Your task to perform on an android device: Open Youtube and go to "Your channel" Image 0: 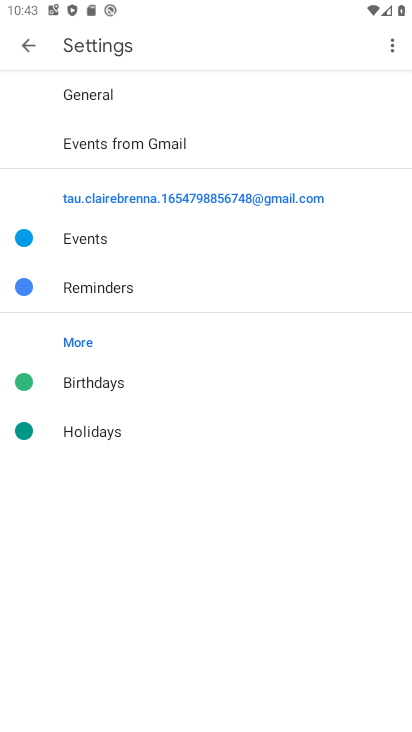
Step 0: press home button
Your task to perform on an android device: Open Youtube and go to "Your channel" Image 1: 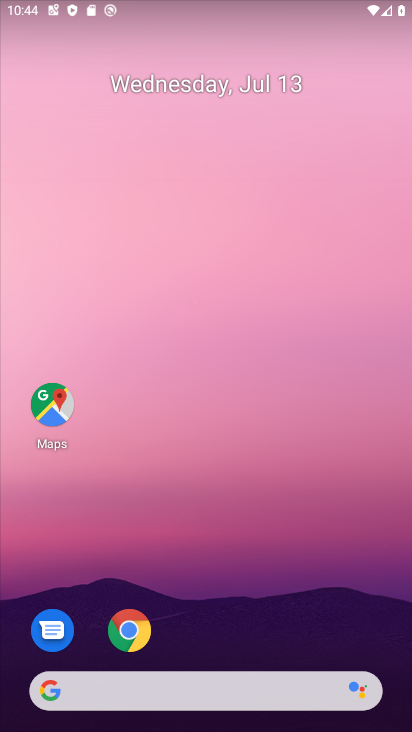
Step 1: drag from (303, 506) to (246, 18)
Your task to perform on an android device: Open Youtube and go to "Your channel" Image 2: 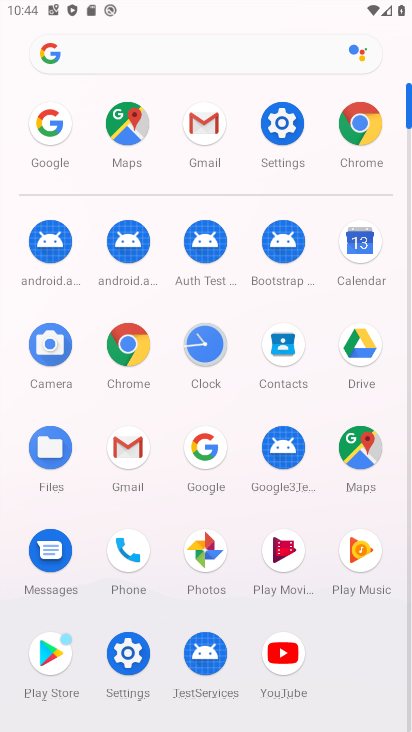
Step 2: click (289, 653)
Your task to perform on an android device: Open Youtube and go to "Your channel" Image 3: 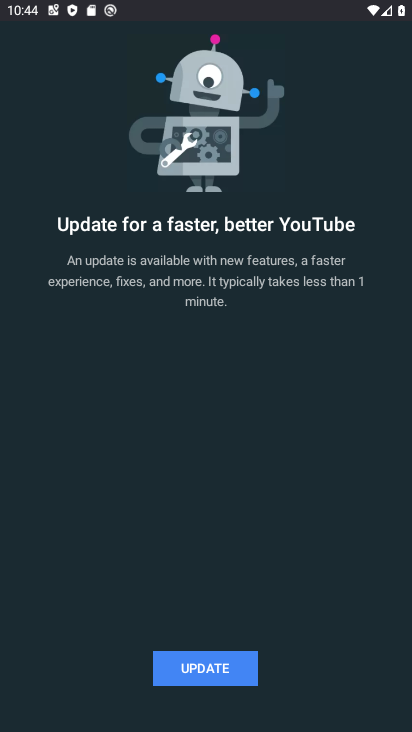
Step 3: click (232, 665)
Your task to perform on an android device: Open Youtube and go to "Your channel" Image 4: 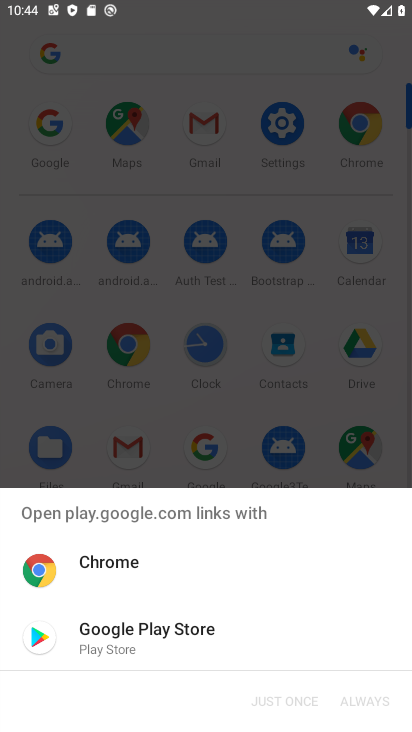
Step 4: click (175, 644)
Your task to perform on an android device: Open Youtube and go to "Your channel" Image 5: 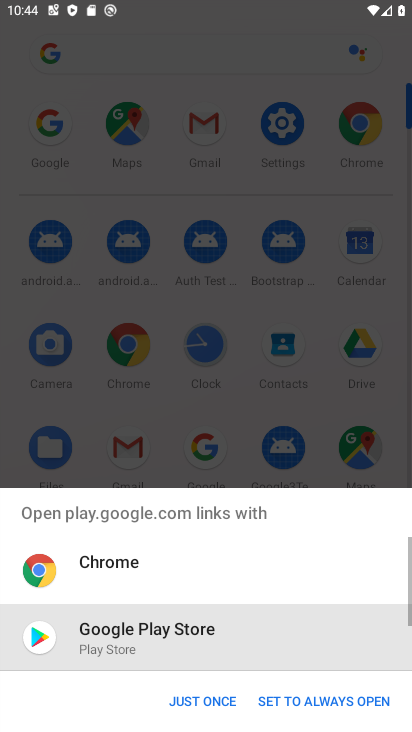
Step 5: click (189, 696)
Your task to perform on an android device: Open Youtube and go to "Your channel" Image 6: 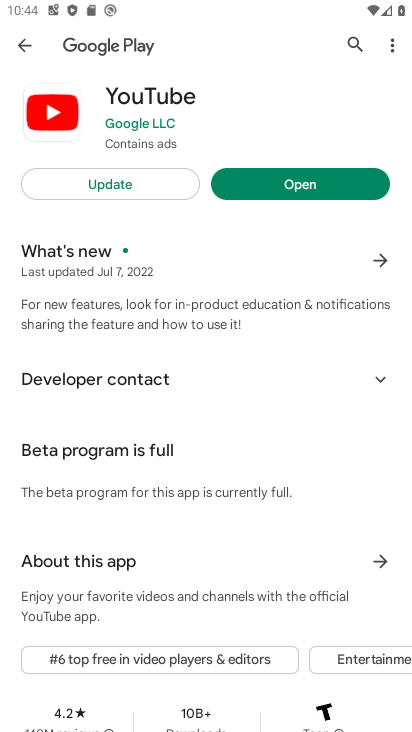
Step 6: click (125, 191)
Your task to perform on an android device: Open Youtube and go to "Your channel" Image 7: 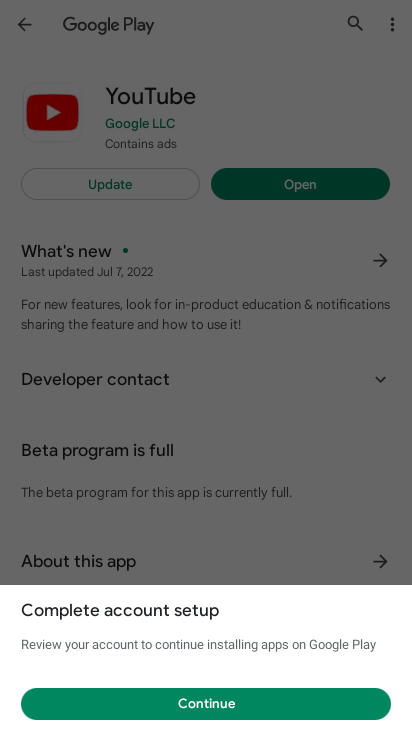
Step 7: click (246, 702)
Your task to perform on an android device: Open Youtube and go to "Your channel" Image 8: 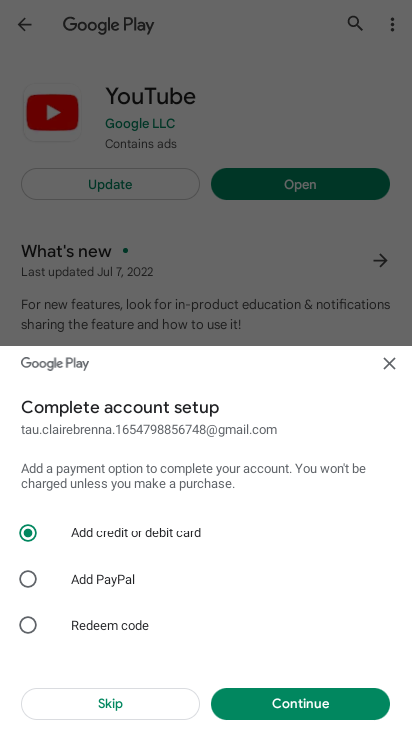
Step 8: click (390, 360)
Your task to perform on an android device: Open Youtube and go to "Your channel" Image 9: 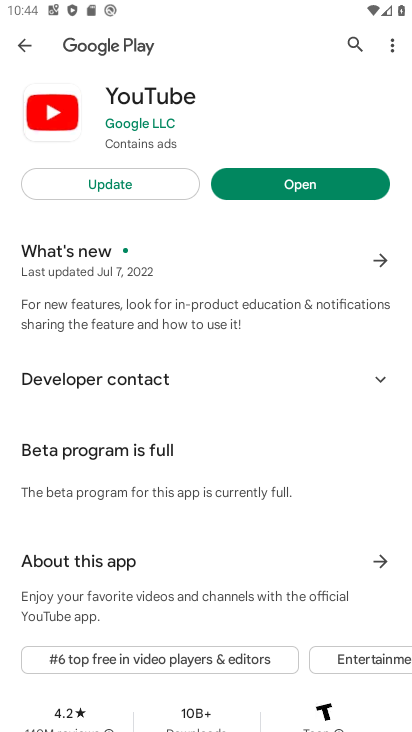
Step 9: click (136, 180)
Your task to perform on an android device: Open Youtube and go to "Your channel" Image 10: 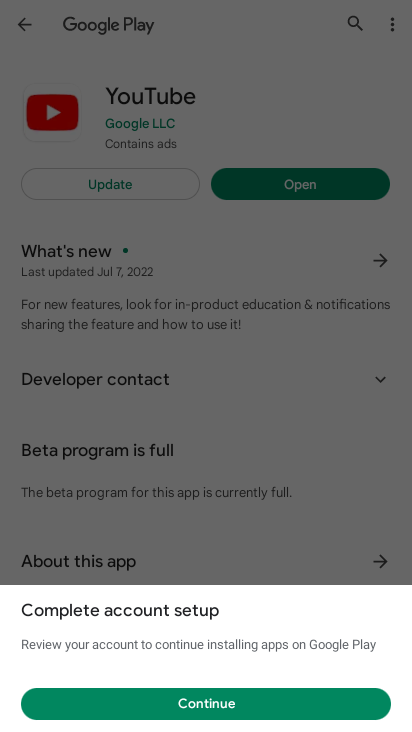
Step 10: click (223, 706)
Your task to perform on an android device: Open Youtube and go to "Your channel" Image 11: 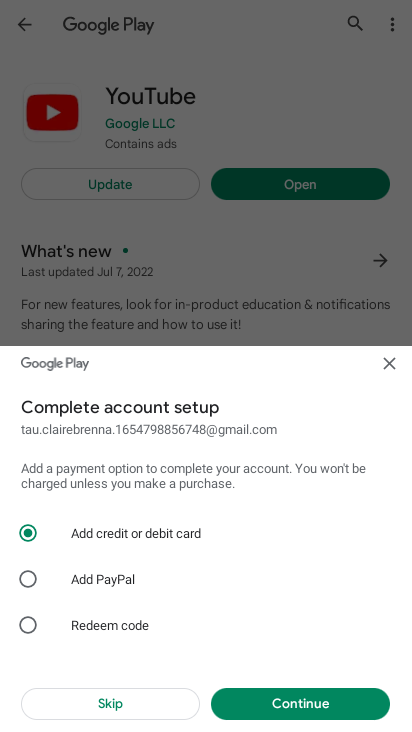
Step 11: click (117, 707)
Your task to perform on an android device: Open Youtube and go to "Your channel" Image 12: 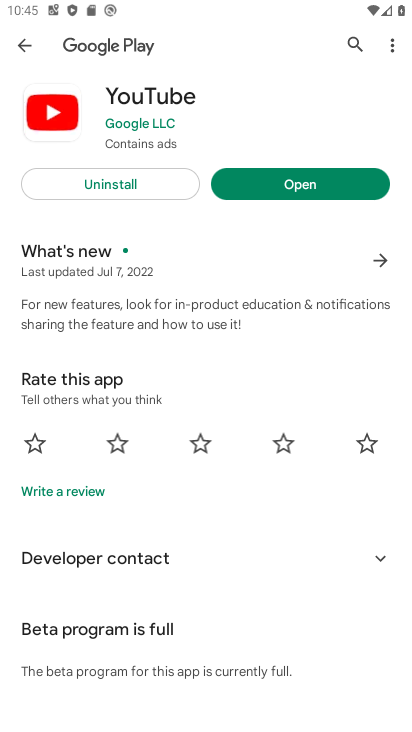
Step 12: click (302, 196)
Your task to perform on an android device: Open Youtube and go to "Your channel" Image 13: 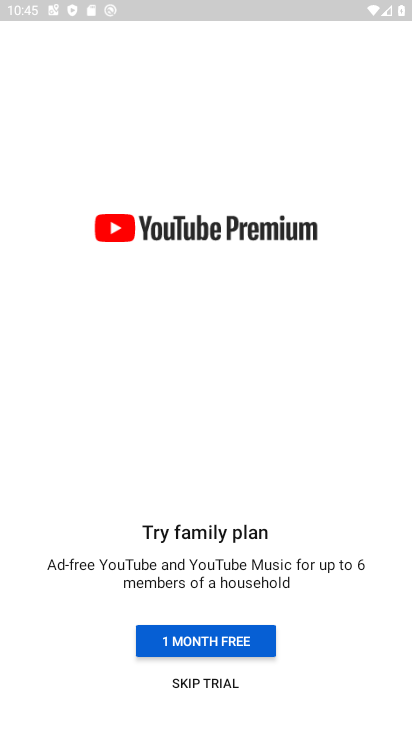
Step 13: click (225, 689)
Your task to perform on an android device: Open Youtube and go to "Your channel" Image 14: 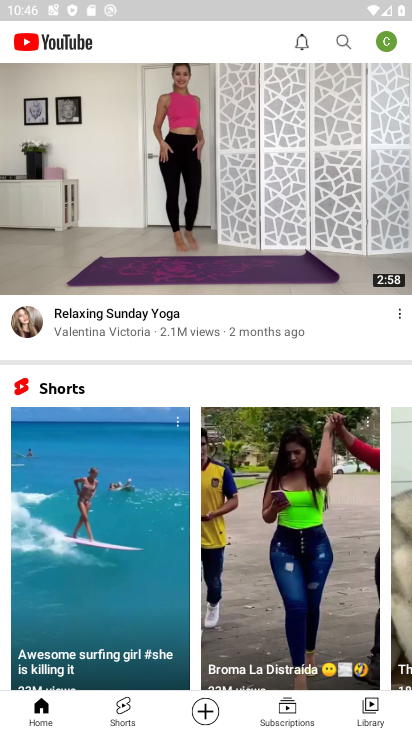
Step 14: click (379, 48)
Your task to perform on an android device: Open Youtube and go to "Your channel" Image 15: 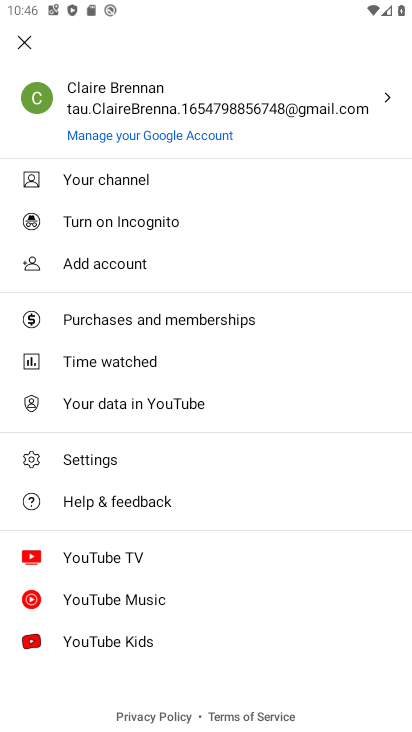
Step 15: click (93, 180)
Your task to perform on an android device: Open Youtube and go to "Your channel" Image 16: 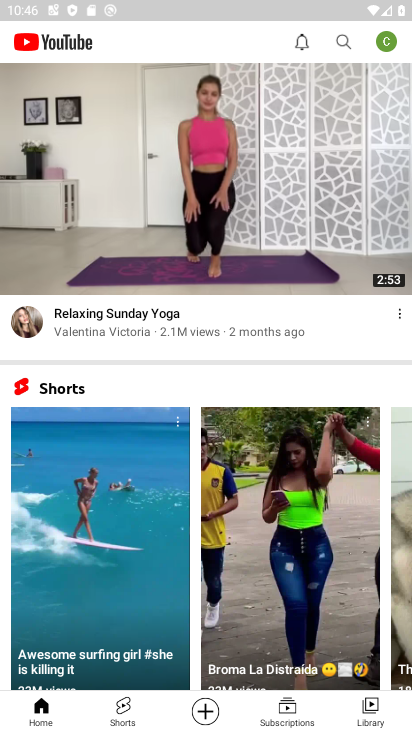
Step 16: task complete